Your task to perform on an android device: turn off picture-in-picture Image 0: 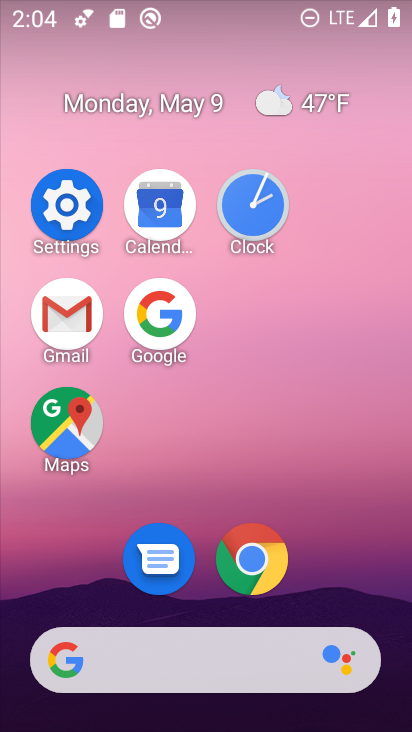
Step 0: click (265, 549)
Your task to perform on an android device: turn off picture-in-picture Image 1: 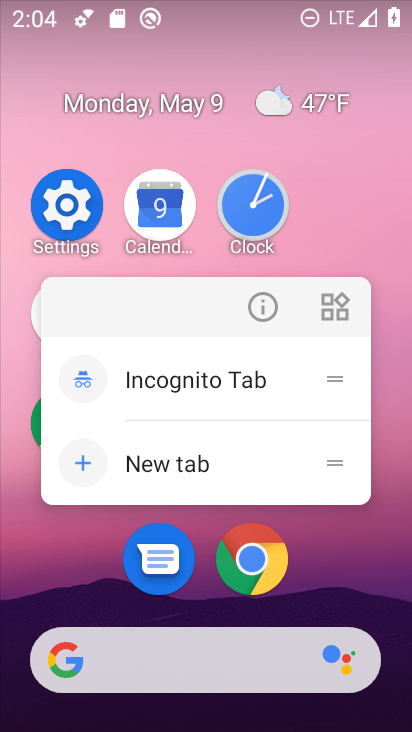
Step 1: click (263, 314)
Your task to perform on an android device: turn off picture-in-picture Image 2: 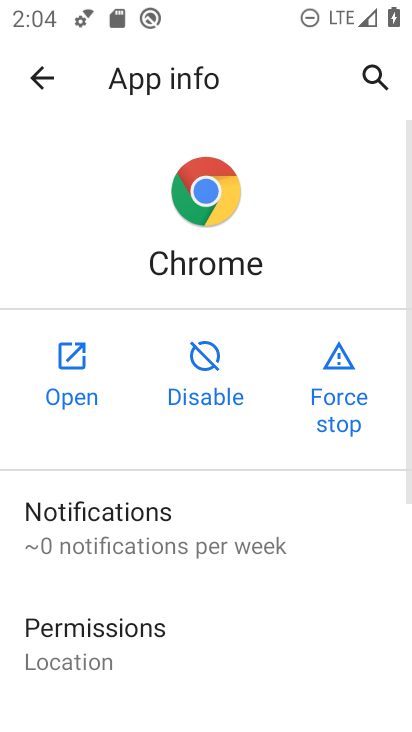
Step 2: drag from (296, 612) to (286, 128)
Your task to perform on an android device: turn off picture-in-picture Image 3: 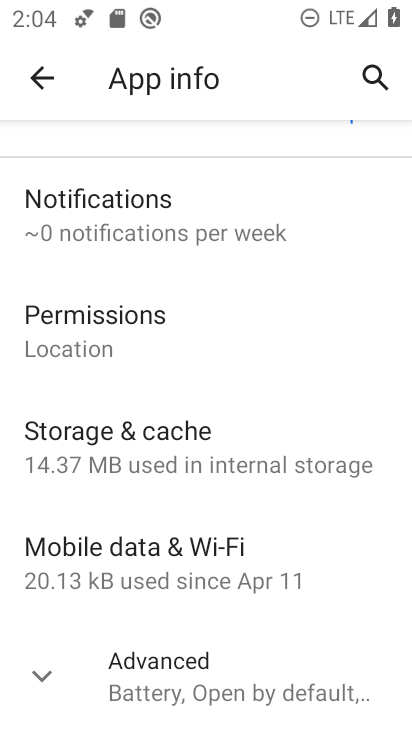
Step 3: click (206, 675)
Your task to perform on an android device: turn off picture-in-picture Image 4: 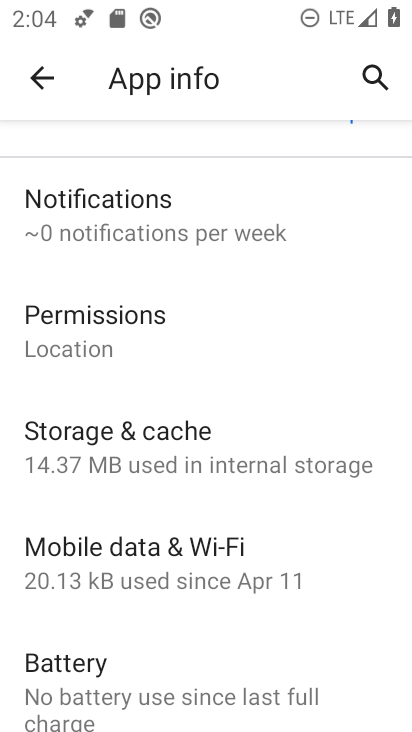
Step 4: drag from (206, 675) to (210, 179)
Your task to perform on an android device: turn off picture-in-picture Image 5: 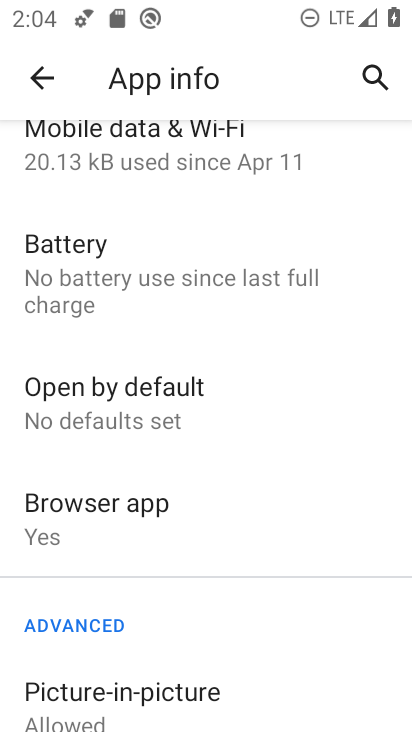
Step 5: drag from (233, 698) to (306, 235)
Your task to perform on an android device: turn off picture-in-picture Image 6: 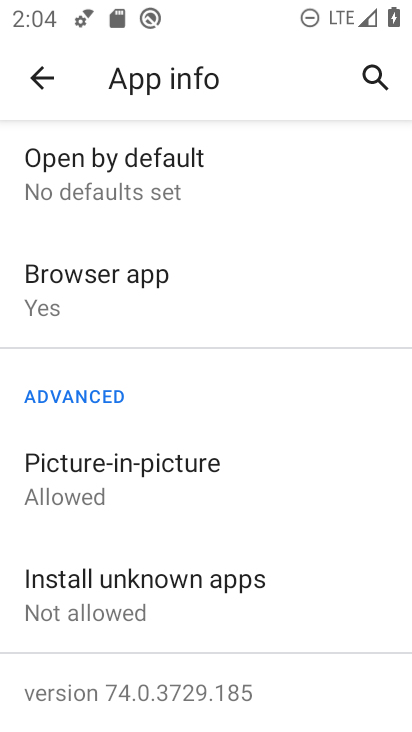
Step 6: click (215, 452)
Your task to perform on an android device: turn off picture-in-picture Image 7: 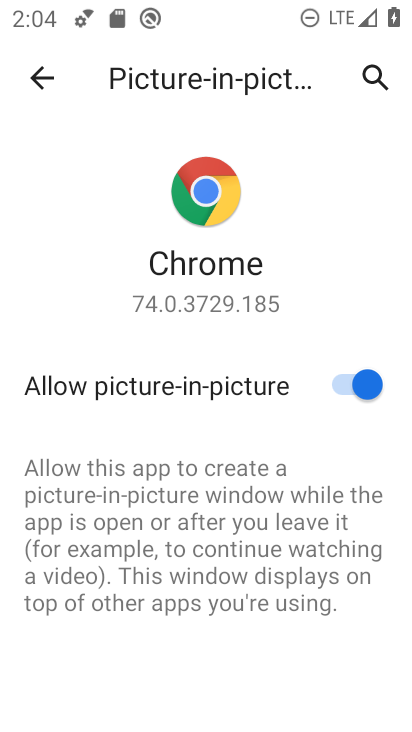
Step 7: click (346, 391)
Your task to perform on an android device: turn off picture-in-picture Image 8: 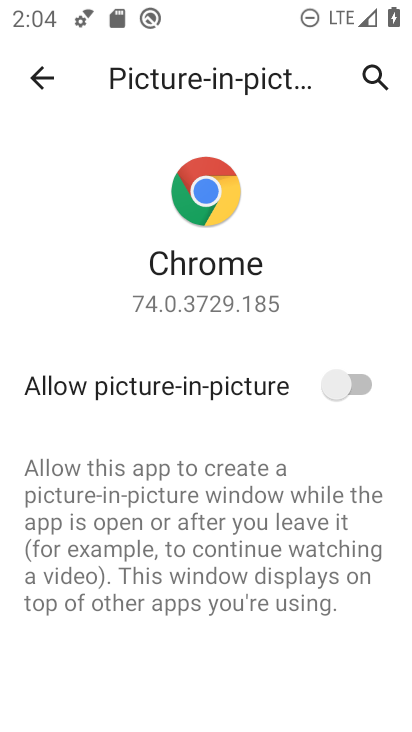
Step 8: task complete